Your task to perform on an android device: Do I have any events this weekend? Image 0: 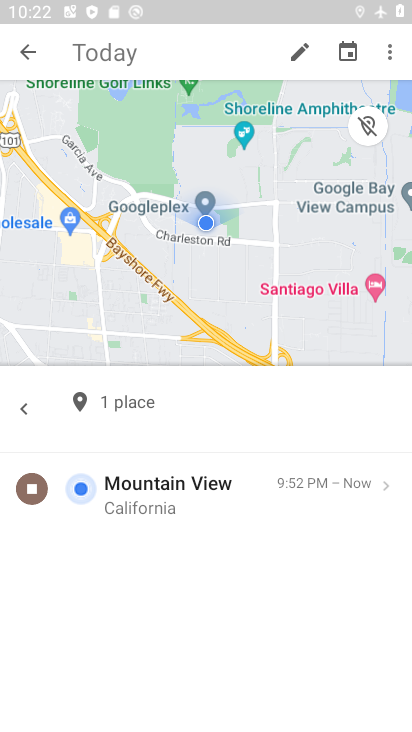
Step 0: press home button
Your task to perform on an android device: Do I have any events this weekend? Image 1: 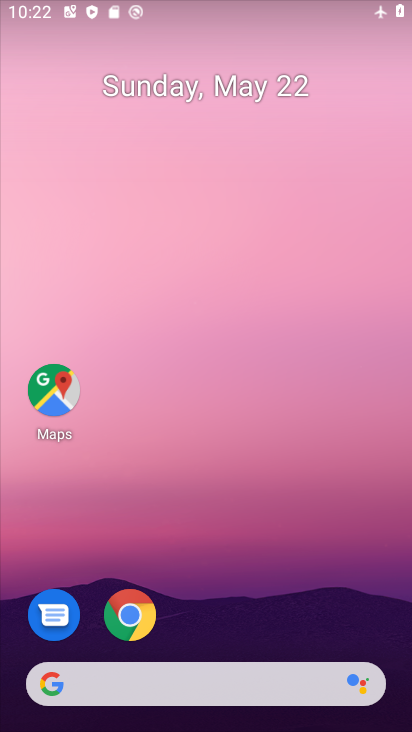
Step 1: drag from (310, 619) to (262, 121)
Your task to perform on an android device: Do I have any events this weekend? Image 2: 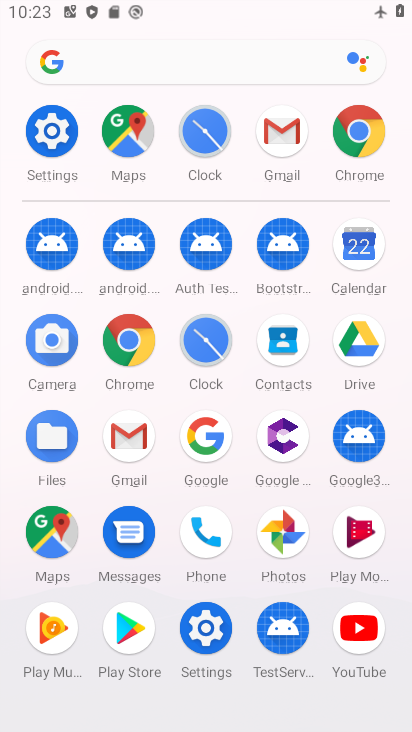
Step 2: click (352, 245)
Your task to perform on an android device: Do I have any events this weekend? Image 3: 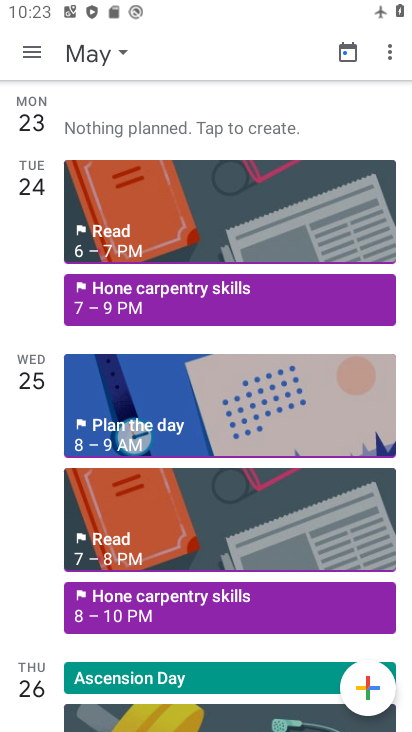
Step 3: click (73, 51)
Your task to perform on an android device: Do I have any events this weekend? Image 4: 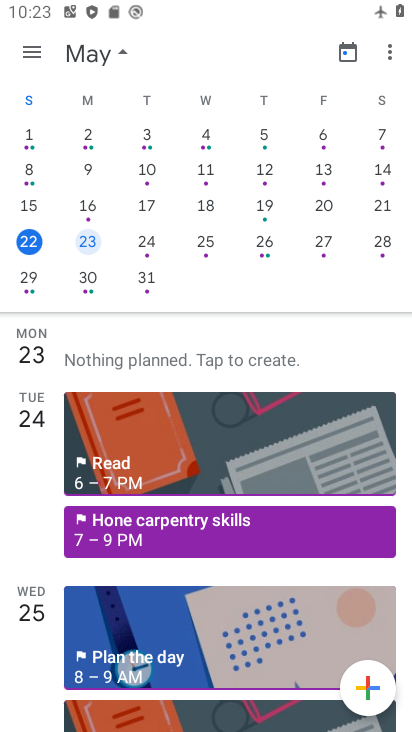
Step 4: click (30, 46)
Your task to perform on an android device: Do I have any events this weekend? Image 5: 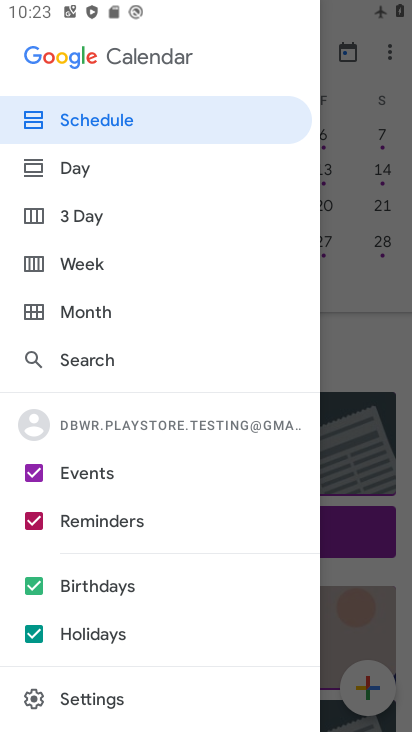
Step 5: click (80, 207)
Your task to perform on an android device: Do I have any events this weekend? Image 6: 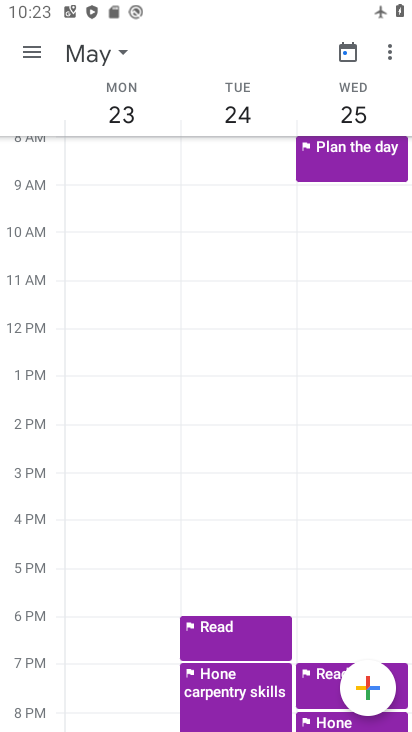
Step 6: task complete